Your task to perform on an android device: Go to location settings Image 0: 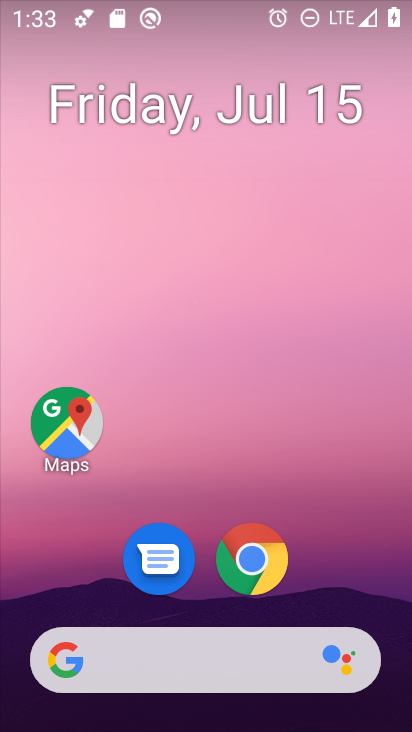
Step 0: drag from (391, 592) to (400, 100)
Your task to perform on an android device: Go to location settings Image 1: 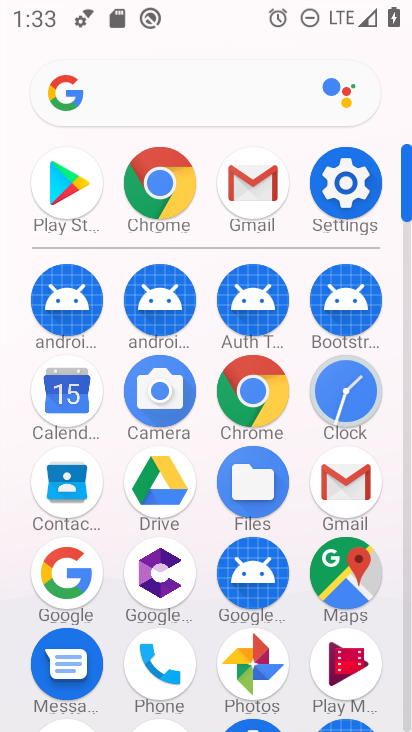
Step 1: click (354, 182)
Your task to perform on an android device: Go to location settings Image 2: 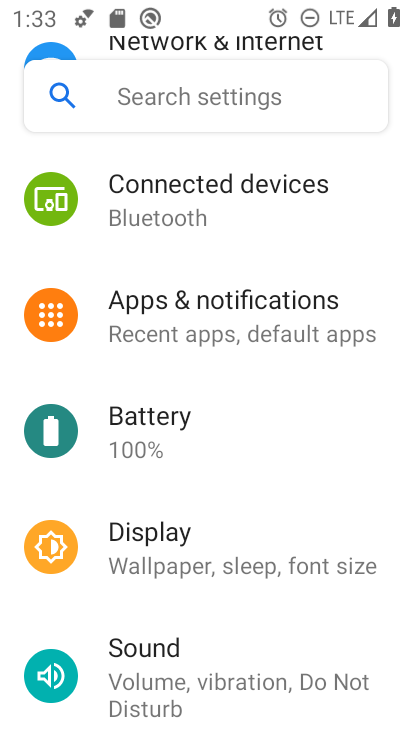
Step 2: drag from (354, 182) to (360, 332)
Your task to perform on an android device: Go to location settings Image 3: 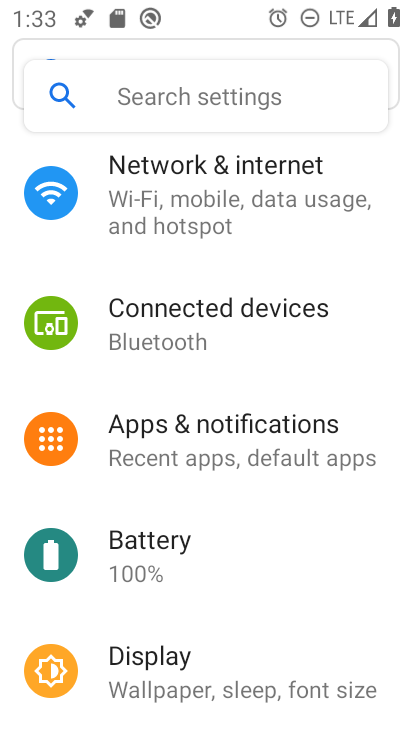
Step 3: drag from (363, 240) to (358, 360)
Your task to perform on an android device: Go to location settings Image 4: 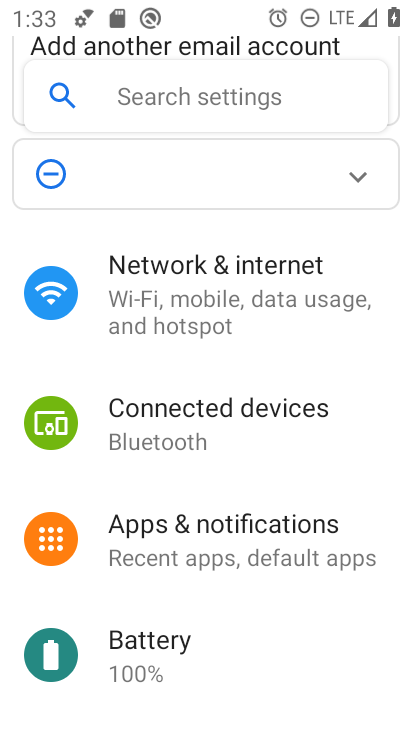
Step 4: drag from (361, 233) to (357, 387)
Your task to perform on an android device: Go to location settings Image 5: 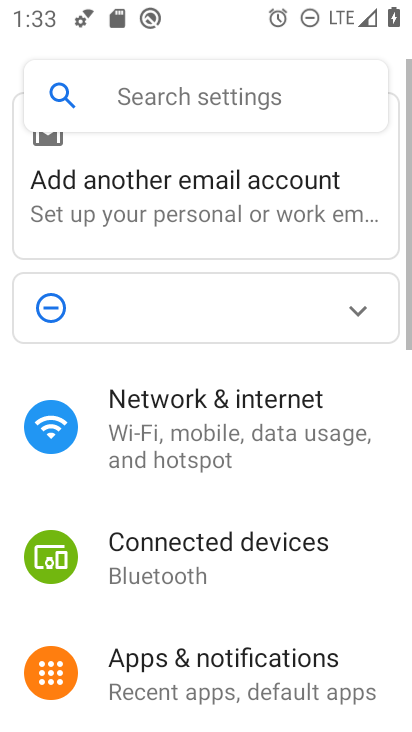
Step 5: drag from (342, 467) to (347, 399)
Your task to perform on an android device: Go to location settings Image 6: 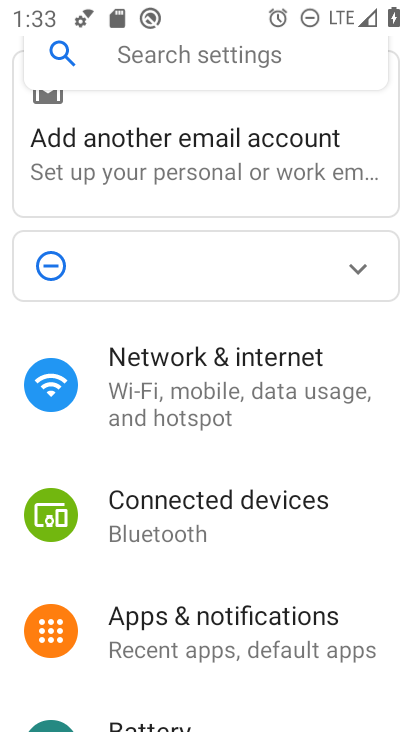
Step 6: drag from (350, 527) to (354, 427)
Your task to perform on an android device: Go to location settings Image 7: 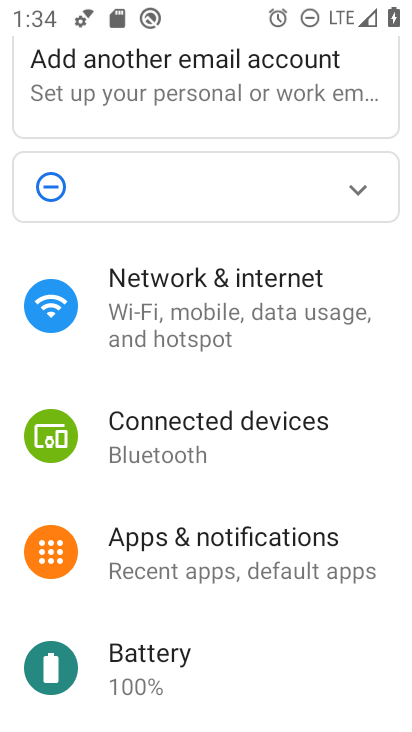
Step 7: drag from (354, 610) to (360, 478)
Your task to perform on an android device: Go to location settings Image 8: 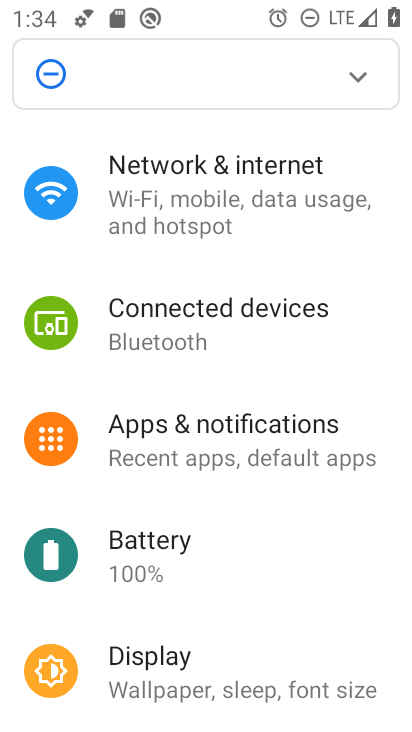
Step 8: drag from (362, 553) to (354, 457)
Your task to perform on an android device: Go to location settings Image 9: 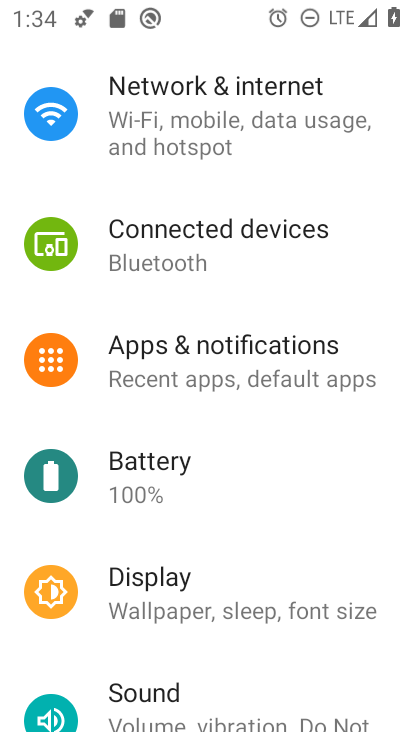
Step 9: drag from (350, 625) to (353, 462)
Your task to perform on an android device: Go to location settings Image 10: 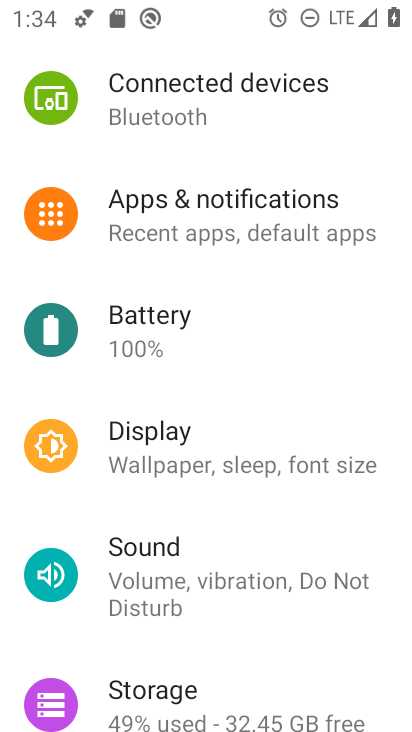
Step 10: drag from (349, 629) to (351, 405)
Your task to perform on an android device: Go to location settings Image 11: 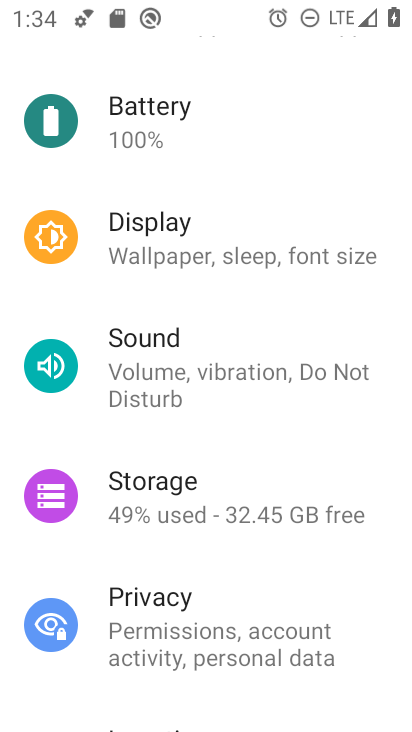
Step 11: drag from (364, 600) to (356, 437)
Your task to perform on an android device: Go to location settings Image 12: 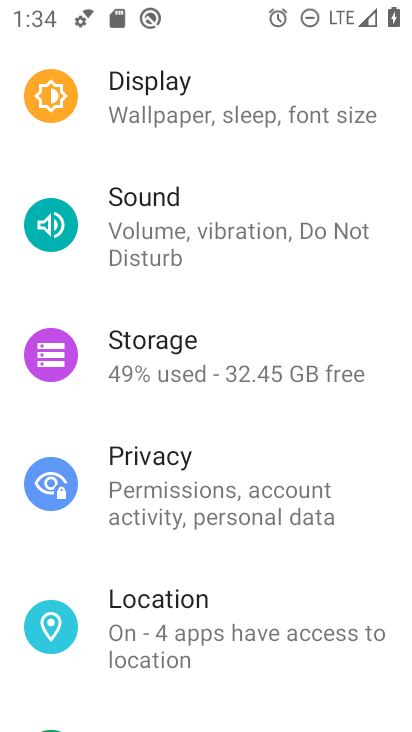
Step 12: drag from (361, 558) to (365, 402)
Your task to perform on an android device: Go to location settings Image 13: 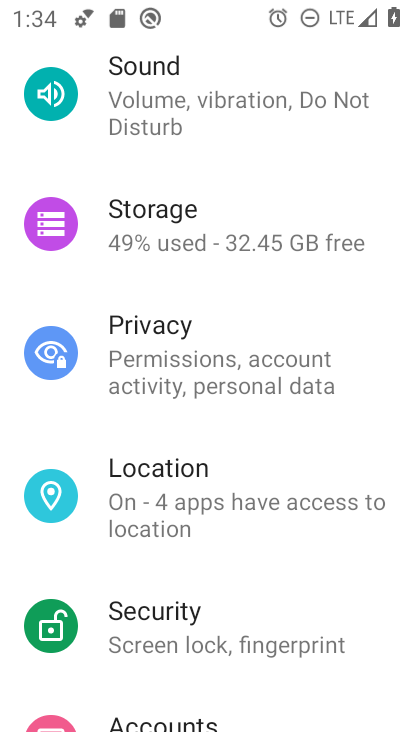
Step 13: click (324, 493)
Your task to perform on an android device: Go to location settings Image 14: 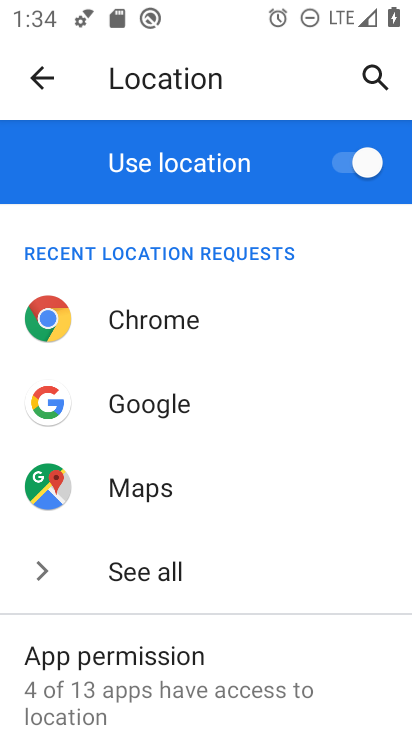
Step 14: task complete